Your task to perform on an android device: visit the assistant section in the google photos Image 0: 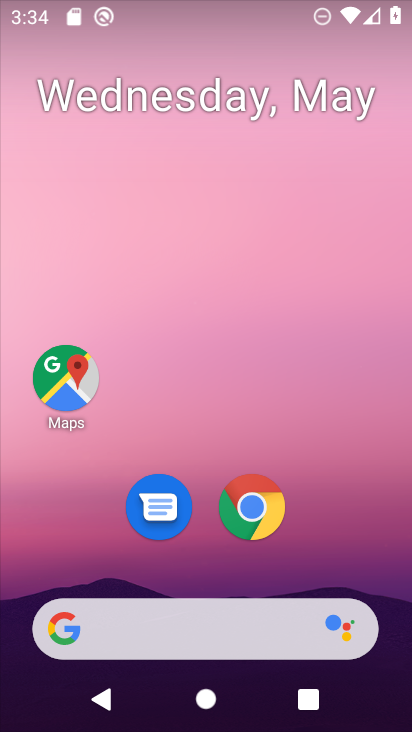
Step 0: drag from (183, 559) to (222, 124)
Your task to perform on an android device: visit the assistant section in the google photos Image 1: 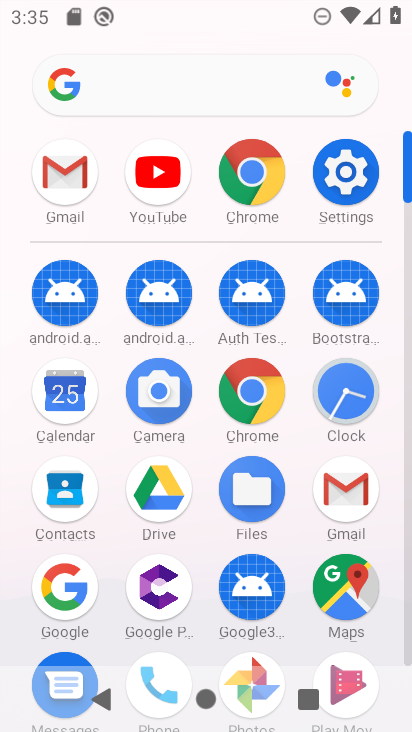
Step 1: drag from (196, 586) to (208, 320)
Your task to perform on an android device: visit the assistant section in the google photos Image 2: 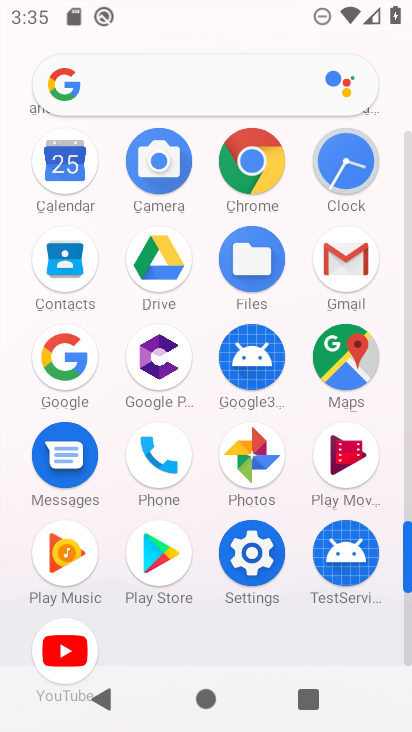
Step 2: click (252, 475)
Your task to perform on an android device: visit the assistant section in the google photos Image 3: 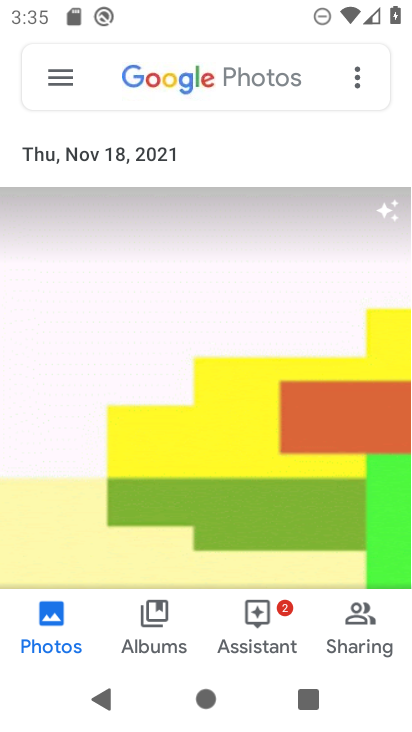
Step 3: click (246, 625)
Your task to perform on an android device: visit the assistant section in the google photos Image 4: 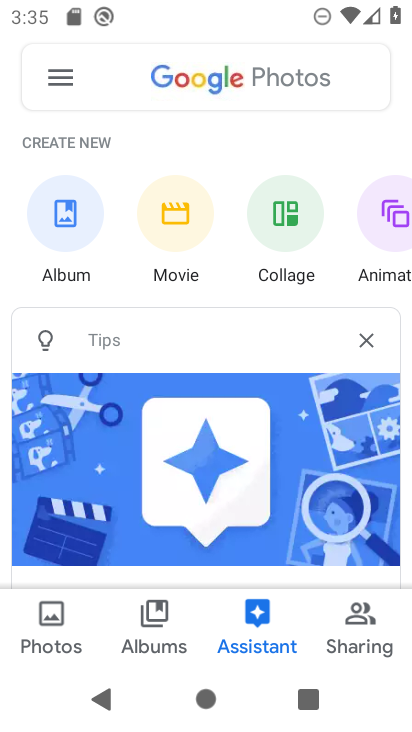
Step 4: task complete